Your task to perform on an android device: remove spam from my inbox in the gmail app Image 0: 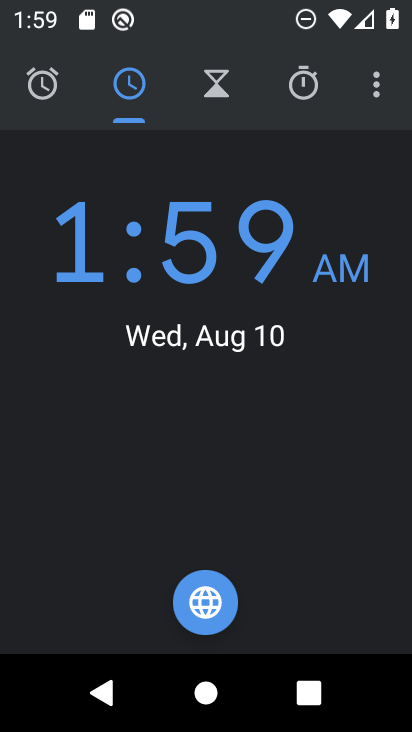
Step 0: press home button
Your task to perform on an android device: remove spam from my inbox in the gmail app Image 1: 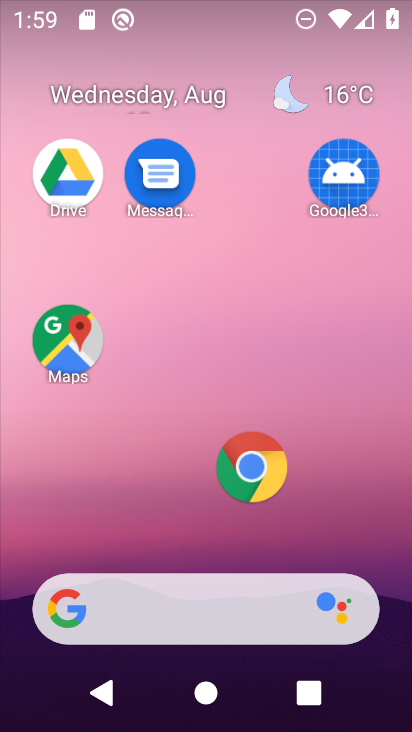
Step 1: drag from (209, 527) to (186, 75)
Your task to perform on an android device: remove spam from my inbox in the gmail app Image 2: 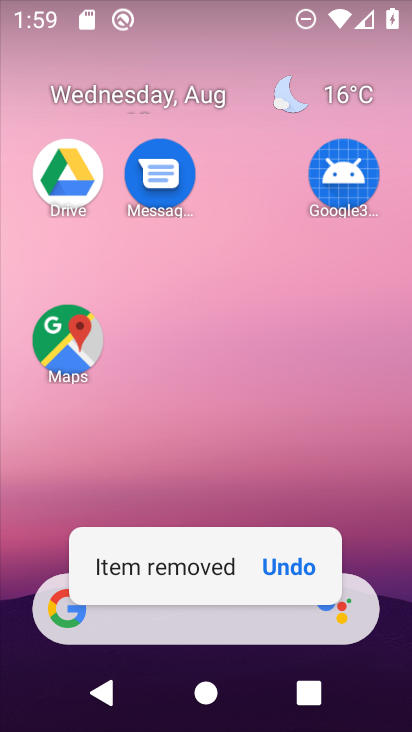
Step 2: click (257, 480)
Your task to perform on an android device: remove spam from my inbox in the gmail app Image 3: 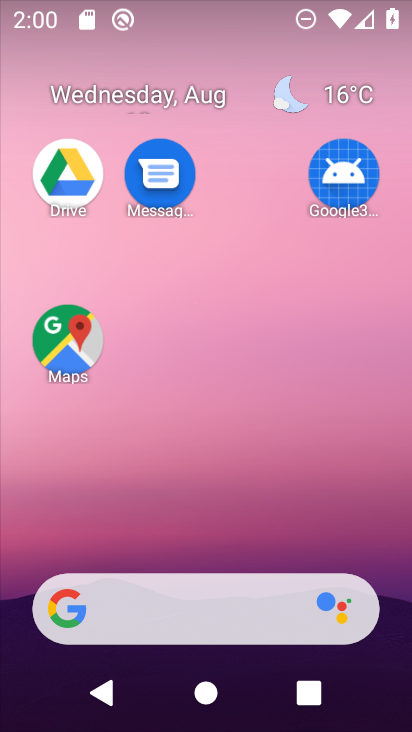
Step 3: drag from (208, 190) to (242, 0)
Your task to perform on an android device: remove spam from my inbox in the gmail app Image 4: 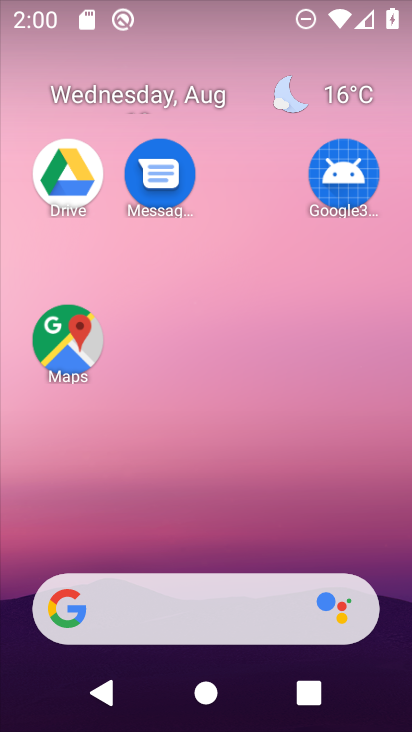
Step 4: click (196, 216)
Your task to perform on an android device: remove spam from my inbox in the gmail app Image 5: 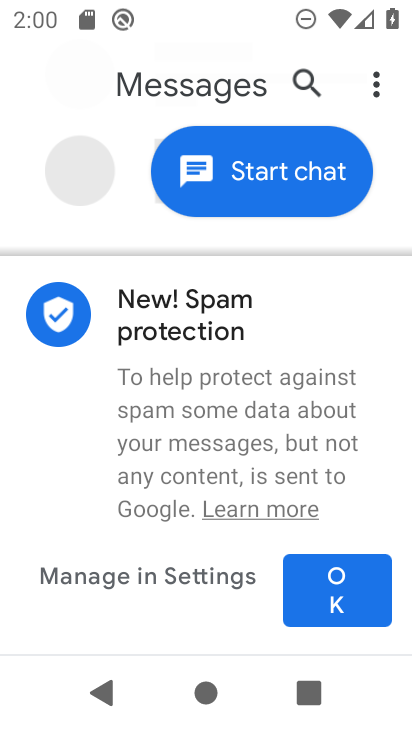
Step 5: drag from (254, 388) to (350, 15)
Your task to perform on an android device: remove spam from my inbox in the gmail app Image 6: 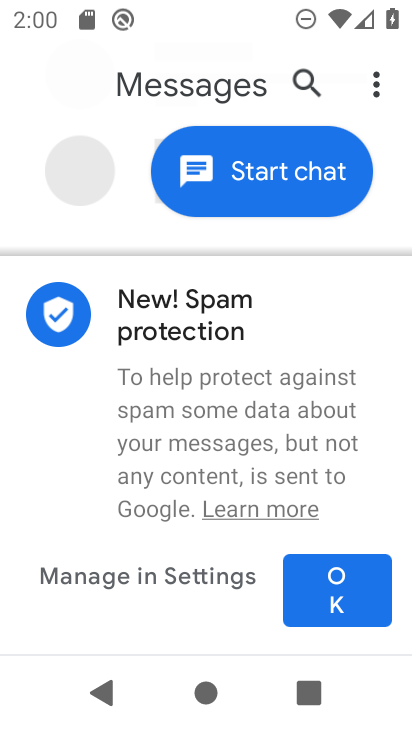
Step 6: press home button
Your task to perform on an android device: remove spam from my inbox in the gmail app Image 7: 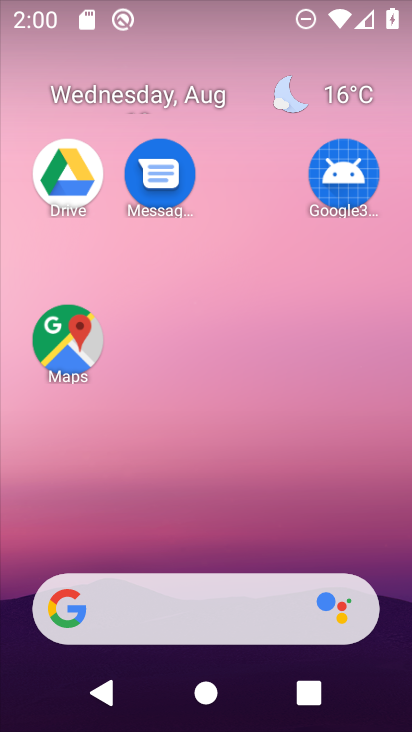
Step 7: drag from (165, 502) to (234, 33)
Your task to perform on an android device: remove spam from my inbox in the gmail app Image 8: 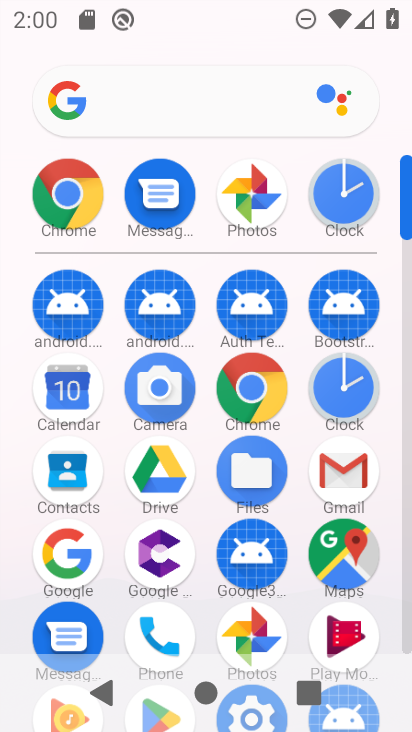
Step 8: click (352, 478)
Your task to perform on an android device: remove spam from my inbox in the gmail app Image 9: 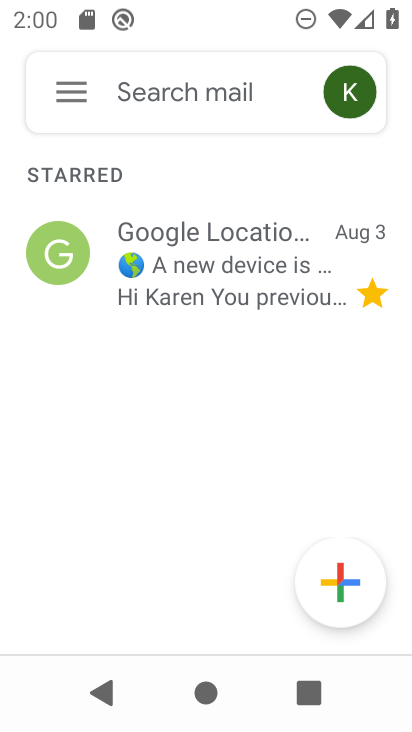
Step 9: click (79, 103)
Your task to perform on an android device: remove spam from my inbox in the gmail app Image 10: 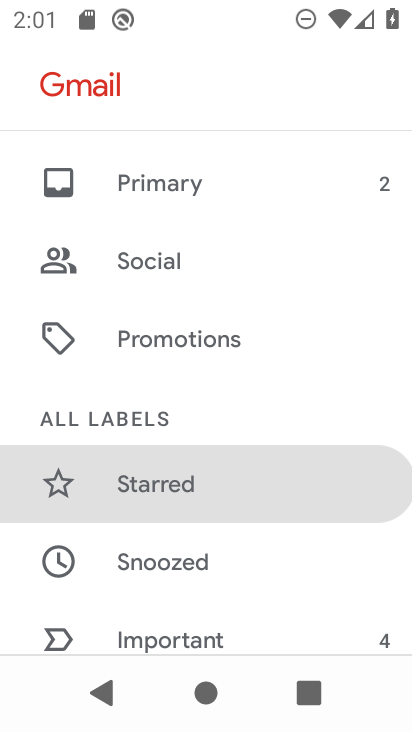
Step 10: drag from (199, 514) to (212, 87)
Your task to perform on an android device: remove spam from my inbox in the gmail app Image 11: 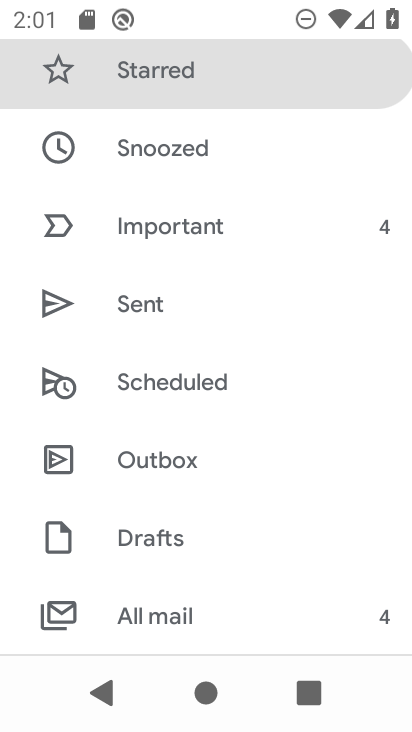
Step 11: drag from (260, 604) to (283, 93)
Your task to perform on an android device: remove spam from my inbox in the gmail app Image 12: 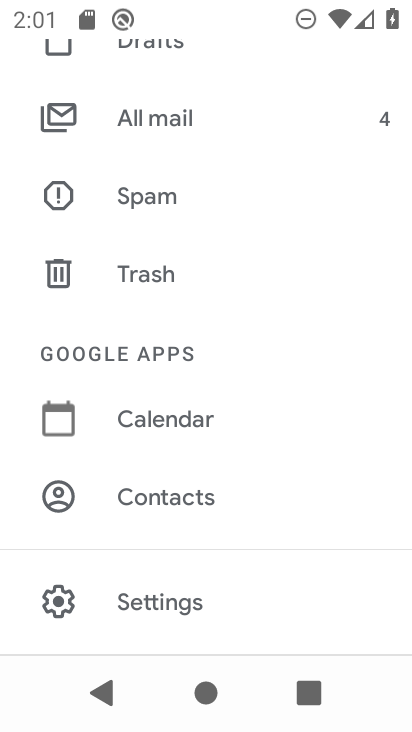
Step 12: click (204, 191)
Your task to perform on an android device: remove spam from my inbox in the gmail app Image 13: 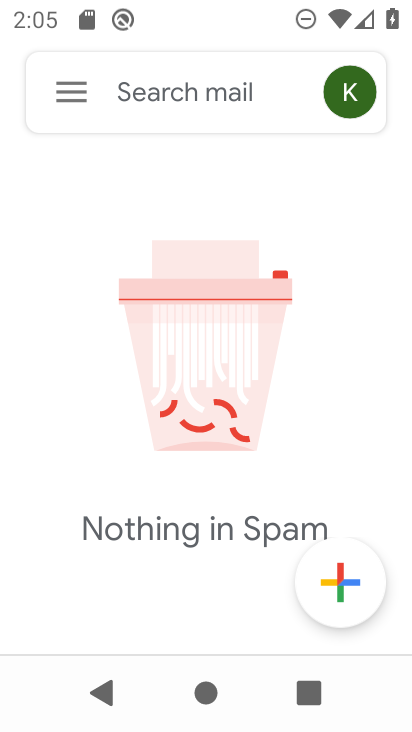
Step 13: task complete